Your task to perform on an android device: Go to network settings Image 0: 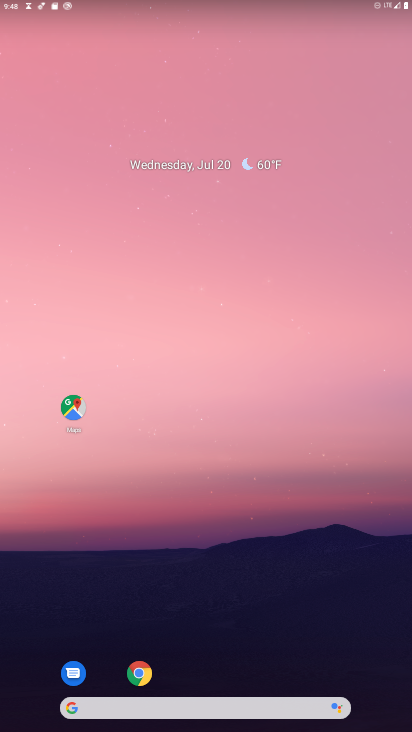
Step 0: drag from (176, 570) to (177, 196)
Your task to perform on an android device: Go to network settings Image 1: 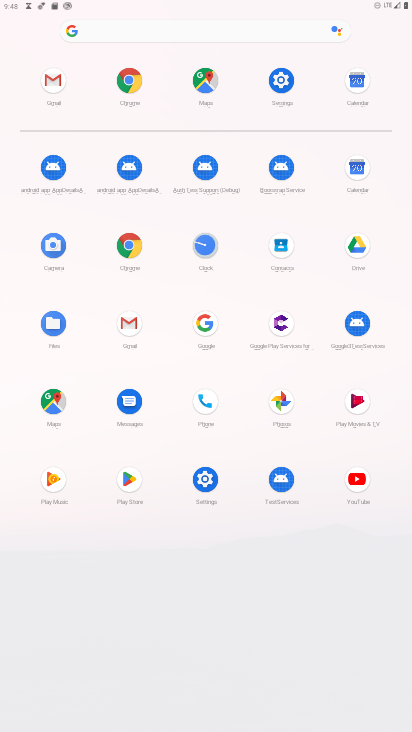
Step 1: click (280, 92)
Your task to perform on an android device: Go to network settings Image 2: 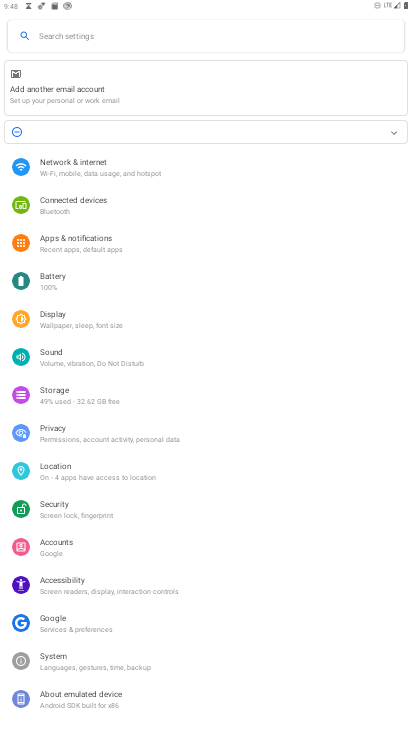
Step 2: click (53, 164)
Your task to perform on an android device: Go to network settings Image 3: 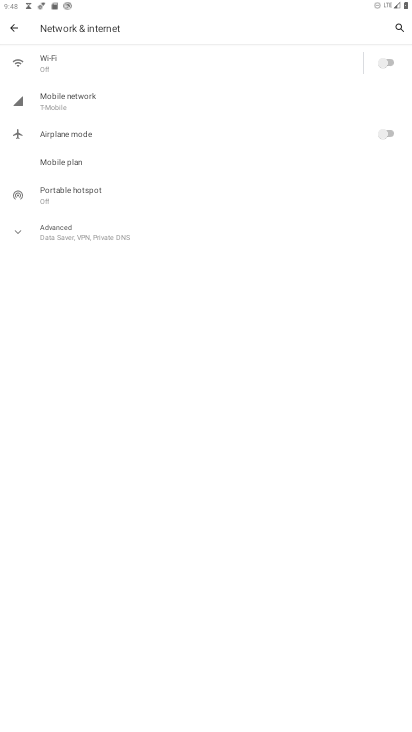
Step 3: task complete